Your task to perform on an android device: Open Youtube and go to the subscriptions tab Image 0: 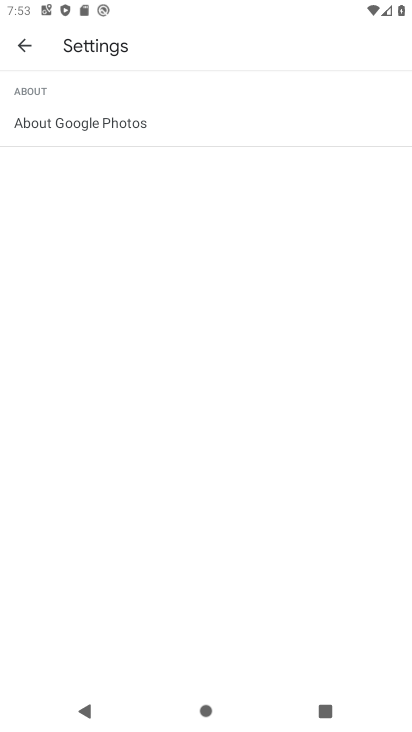
Step 0: press back button
Your task to perform on an android device: Open Youtube and go to the subscriptions tab Image 1: 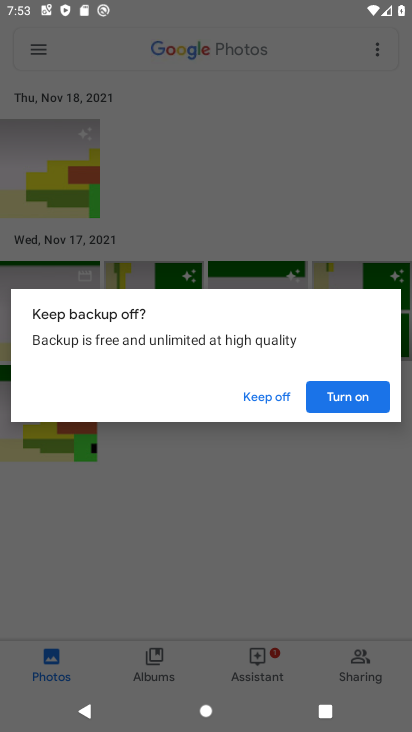
Step 1: press back button
Your task to perform on an android device: Open Youtube and go to the subscriptions tab Image 2: 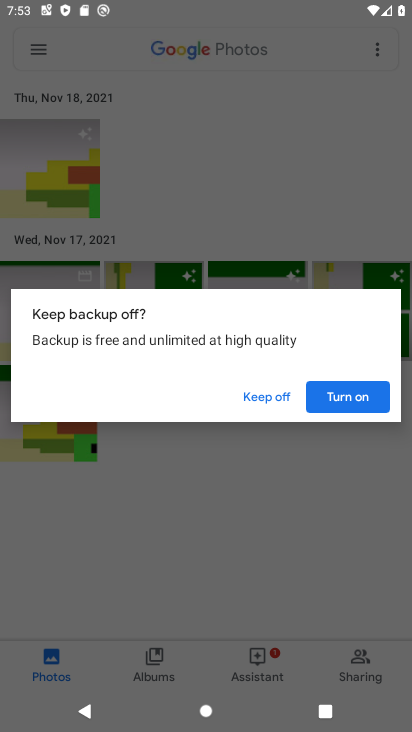
Step 2: press home button
Your task to perform on an android device: Open Youtube and go to the subscriptions tab Image 3: 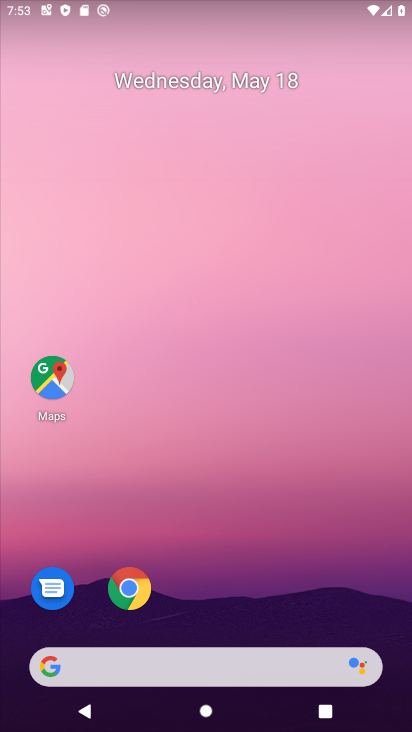
Step 3: drag from (225, 598) to (192, 12)
Your task to perform on an android device: Open Youtube and go to the subscriptions tab Image 4: 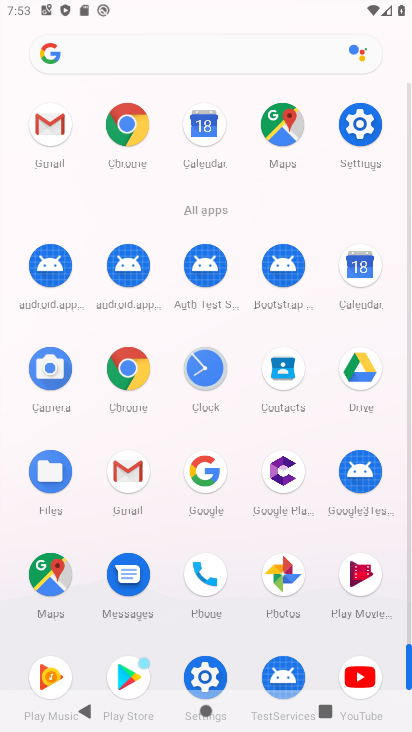
Step 4: click (357, 677)
Your task to perform on an android device: Open Youtube and go to the subscriptions tab Image 5: 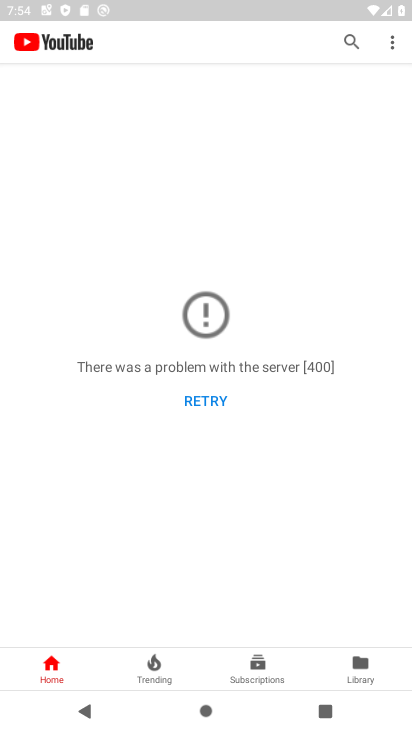
Step 5: click (266, 673)
Your task to perform on an android device: Open Youtube and go to the subscriptions tab Image 6: 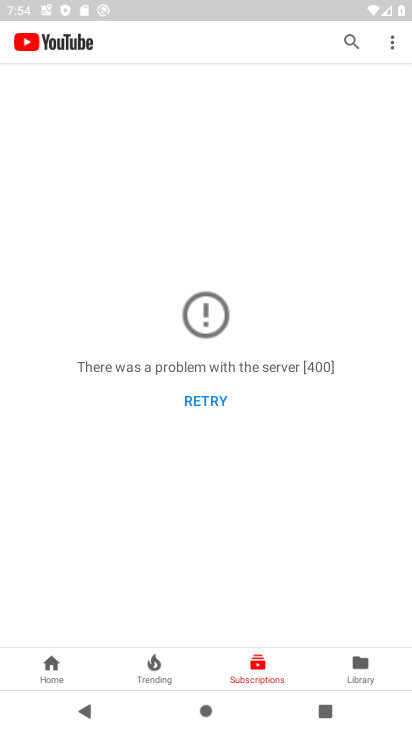
Step 6: task complete